Your task to perform on an android device: turn vacation reply on in the gmail app Image 0: 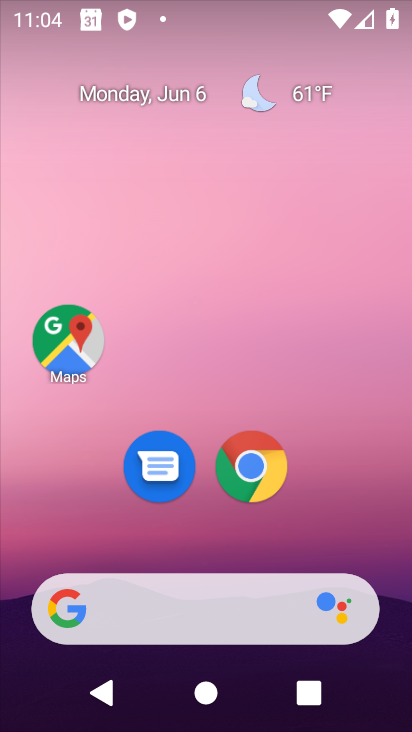
Step 0: drag from (369, 539) to (336, 109)
Your task to perform on an android device: turn vacation reply on in the gmail app Image 1: 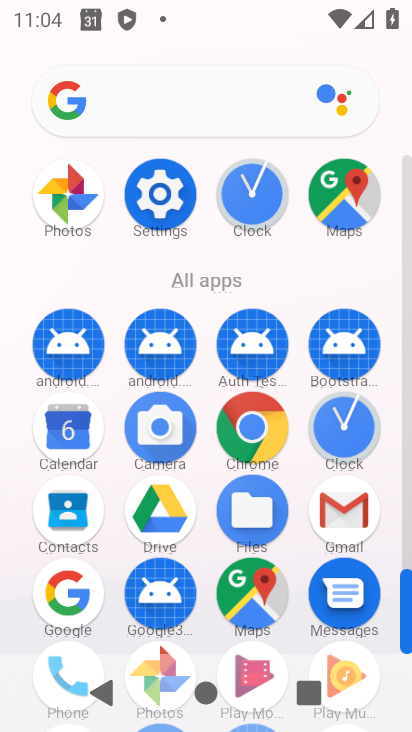
Step 1: click (364, 515)
Your task to perform on an android device: turn vacation reply on in the gmail app Image 2: 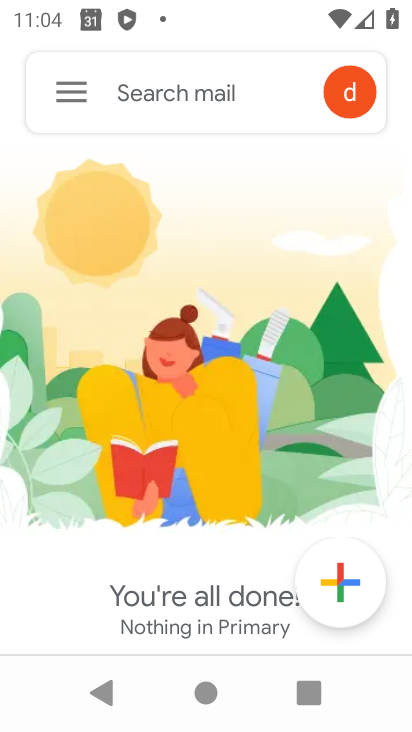
Step 2: click (71, 94)
Your task to perform on an android device: turn vacation reply on in the gmail app Image 3: 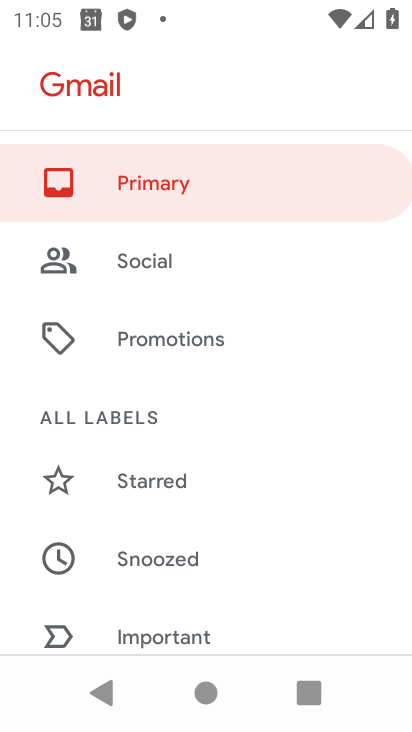
Step 3: drag from (106, 532) to (210, 0)
Your task to perform on an android device: turn vacation reply on in the gmail app Image 4: 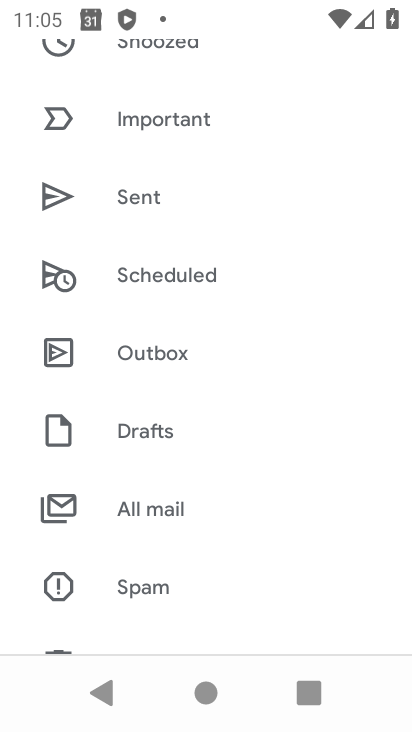
Step 4: drag from (192, 509) to (190, 201)
Your task to perform on an android device: turn vacation reply on in the gmail app Image 5: 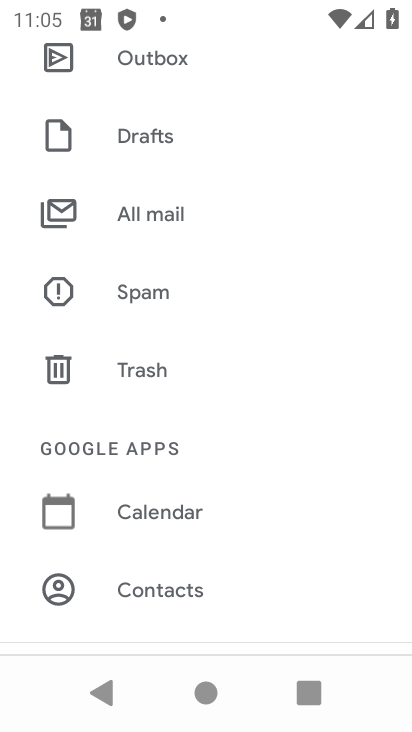
Step 5: drag from (179, 587) to (161, 268)
Your task to perform on an android device: turn vacation reply on in the gmail app Image 6: 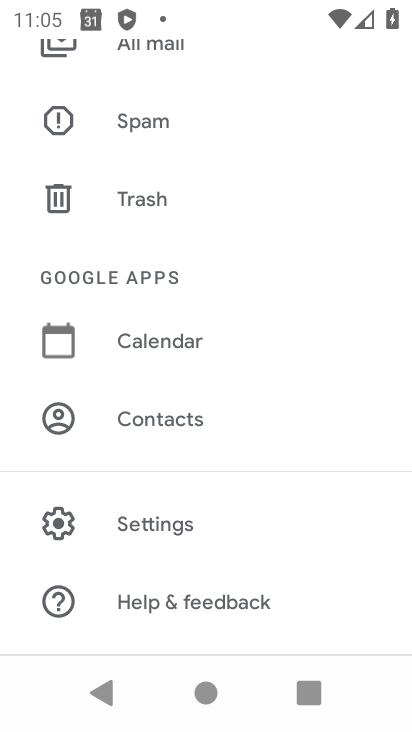
Step 6: drag from (168, 563) to (179, 306)
Your task to perform on an android device: turn vacation reply on in the gmail app Image 7: 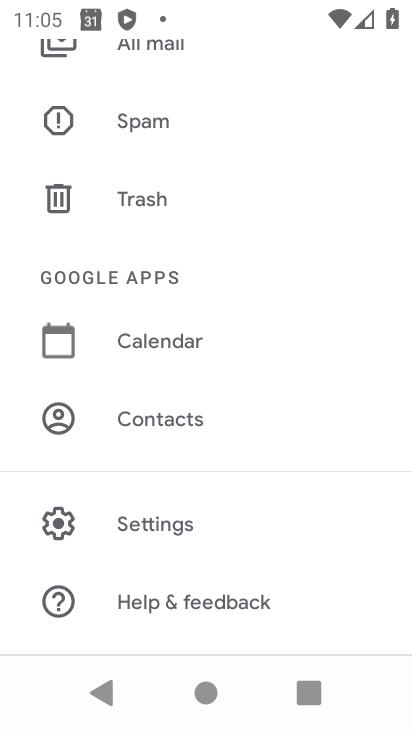
Step 7: click (138, 533)
Your task to perform on an android device: turn vacation reply on in the gmail app Image 8: 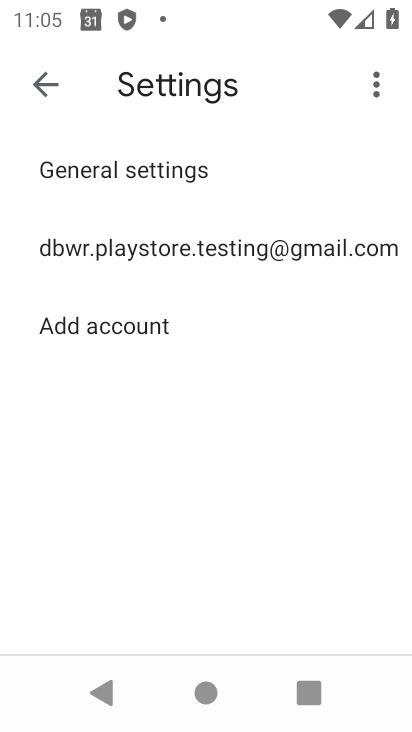
Step 8: click (226, 270)
Your task to perform on an android device: turn vacation reply on in the gmail app Image 9: 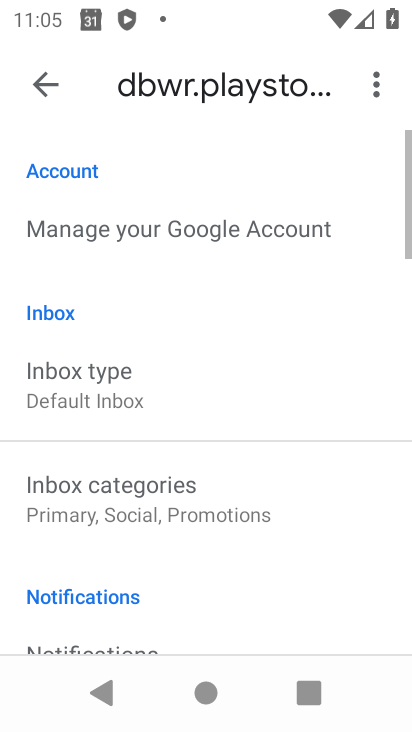
Step 9: drag from (271, 588) to (221, 214)
Your task to perform on an android device: turn vacation reply on in the gmail app Image 10: 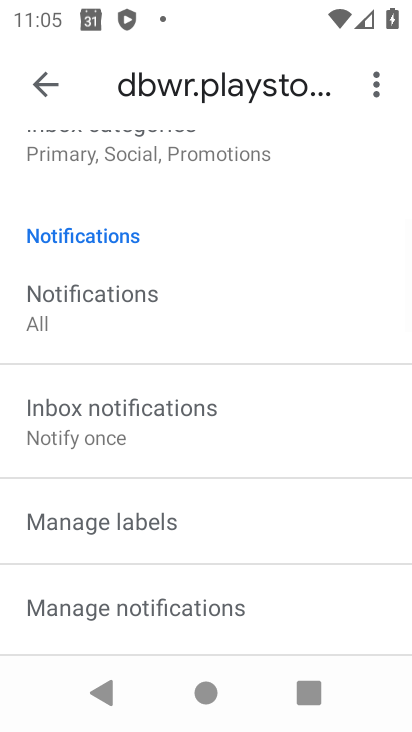
Step 10: drag from (269, 548) to (204, 200)
Your task to perform on an android device: turn vacation reply on in the gmail app Image 11: 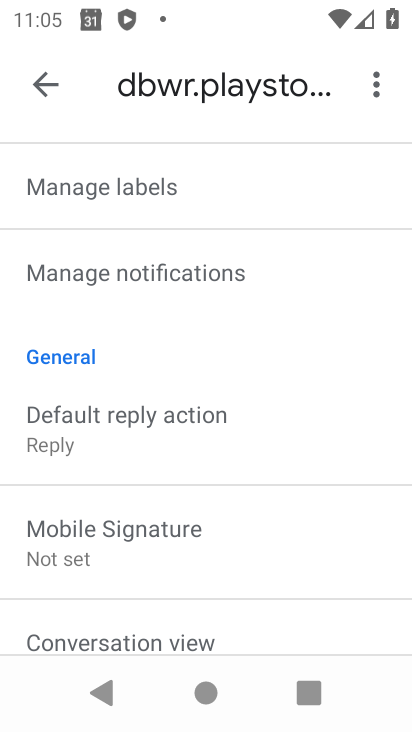
Step 11: drag from (159, 564) to (132, 364)
Your task to perform on an android device: turn vacation reply on in the gmail app Image 12: 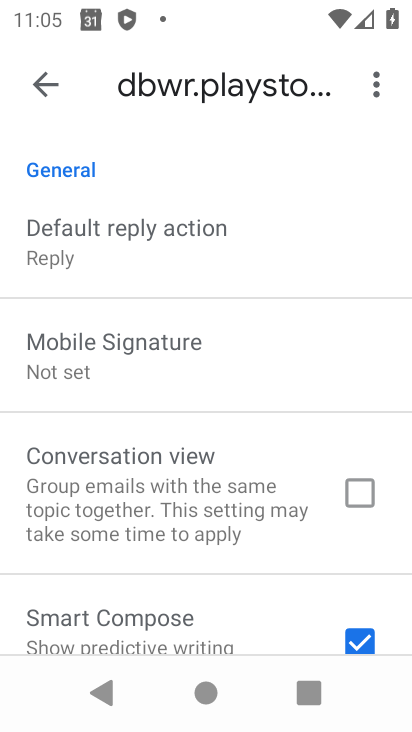
Step 12: drag from (127, 506) to (43, 147)
Your task to perform on an android device: turn vacation reply on in the gmail app Image 13: 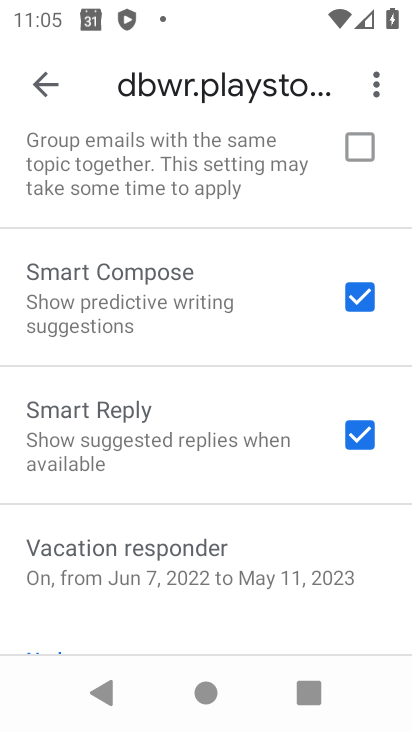
Step 13: click (163, 578)
Your task to perform on an android device: turn vacation reply on in the gmail app Image 14: 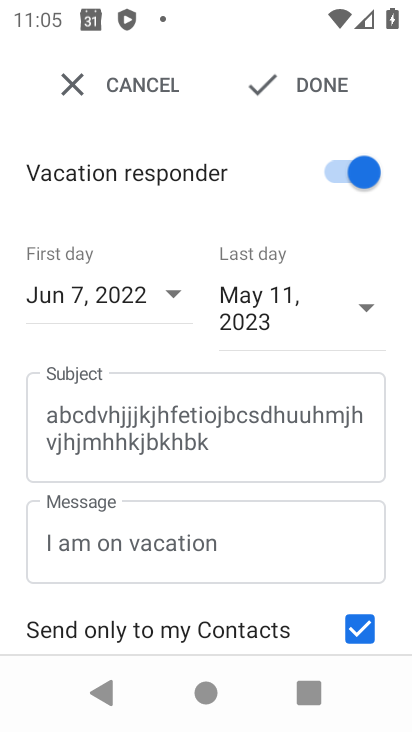
Step 14: click (276, 79)
Your task to perform on an android device: turn vacation reply on in the gmail app Image 15: 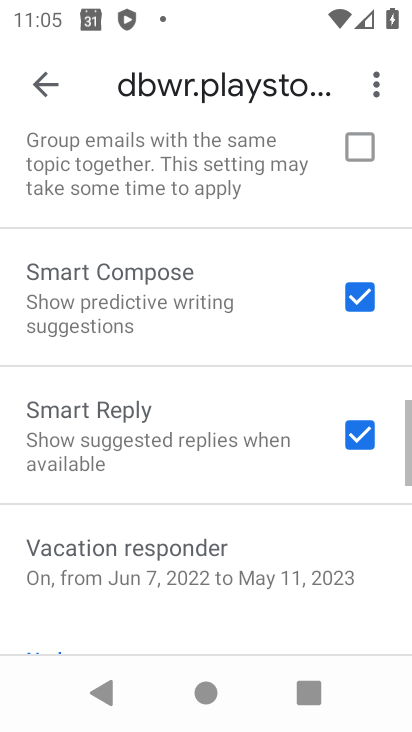
Step 15: task complete